Your task to perform on an android device: Open Google Chrome and click the shortcut for Amazon.com Image 0: 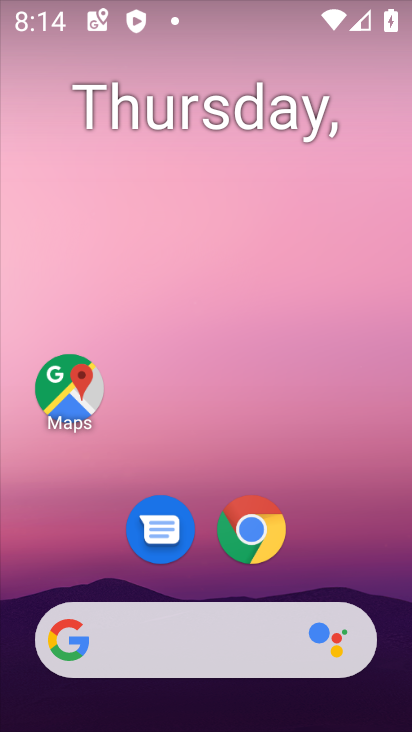
Step 0: click (256, 529)
Your task to perform on an android device: Open Google Chrome and click the shortcut for Amazon.com Image 1: 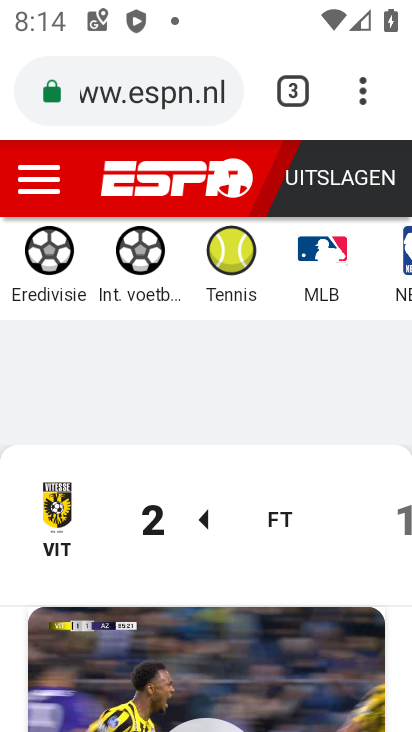
Step 1: click (364, 97)
Your task to perform on an android device: Open Google Chrome and click the shortcut for Amazon.com Image 2: 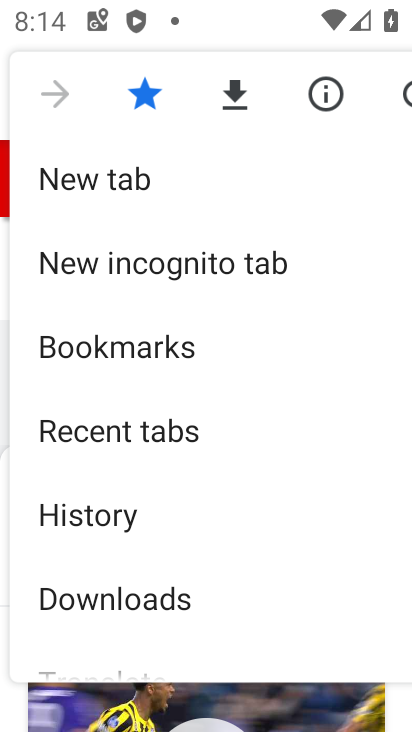
Step 2: click (123, 168)
Your task to perform on an android device: Open Google Chrome and click the shortcut for Amazon.com Image 3: 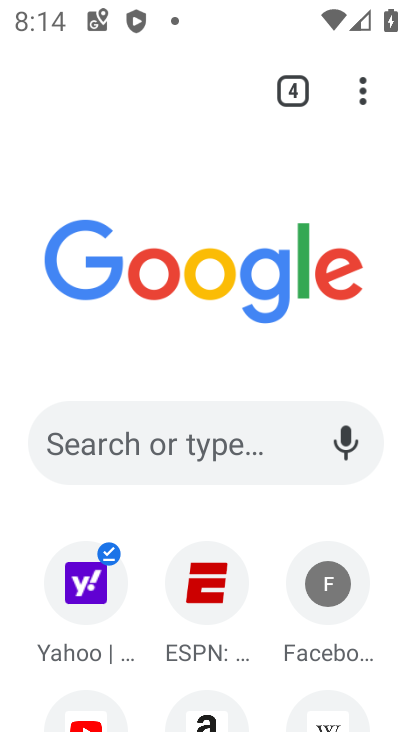
Step 3: click (211, 711)
Your task to perform on an android device: Open Google Chrome and click the shortcut for Amazon.com Image 4: 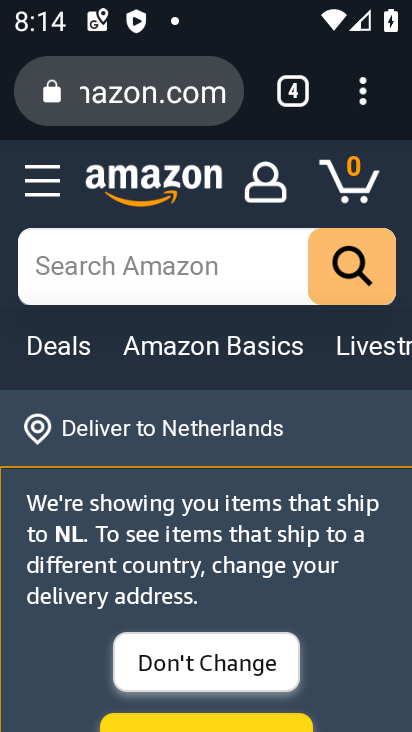
Step 4: task complete